Your task to perform on an android device: Open Amazon Image 0: 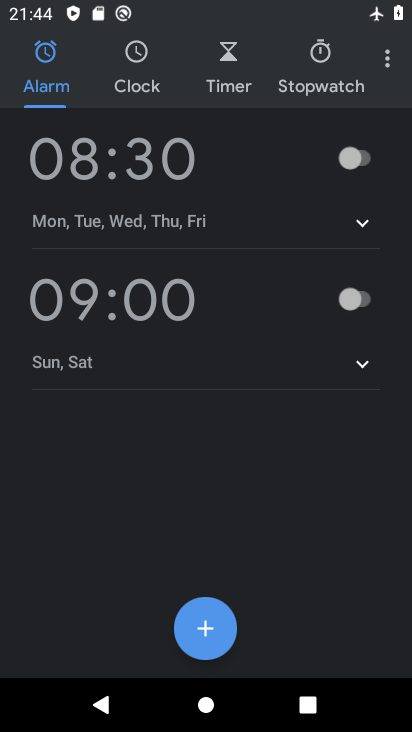
Step 0: press home button
Your task to perform on an android device: Open Amazon Image 1: 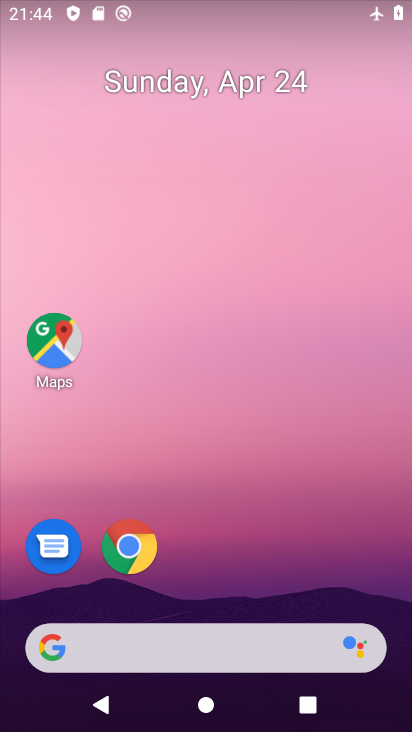
Step 1: drag from (236, 578) to (289, 196)
Your task to perform on an android device: Open Amazon Image 2: 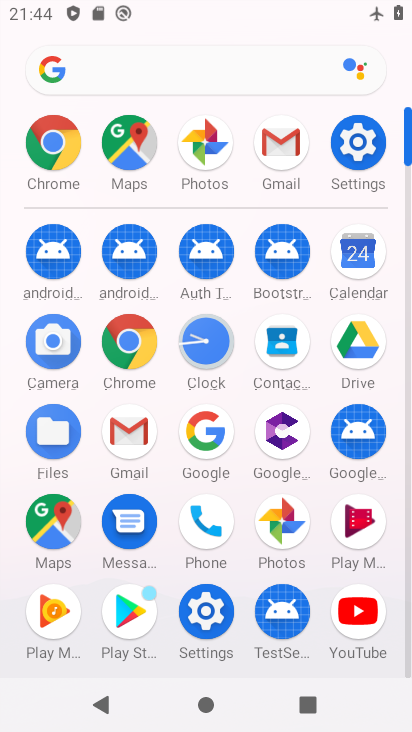
Step 2: click (125, 348)
Your task to perform on an android device: Open Amazon Image 3: 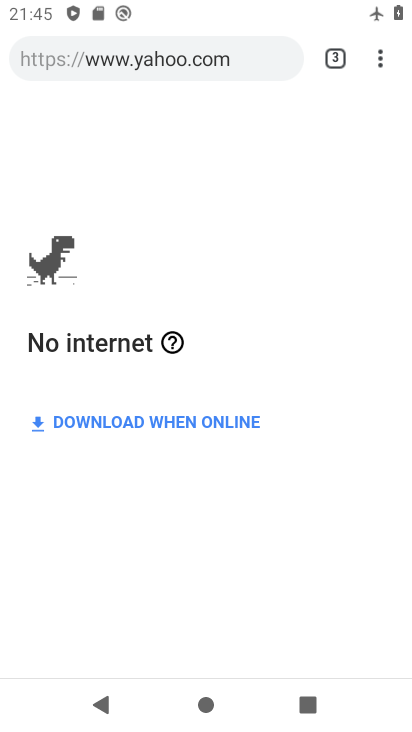
Step 3: click (378, 56)
Your task to perform on an android device: Open Amazon Image 4: 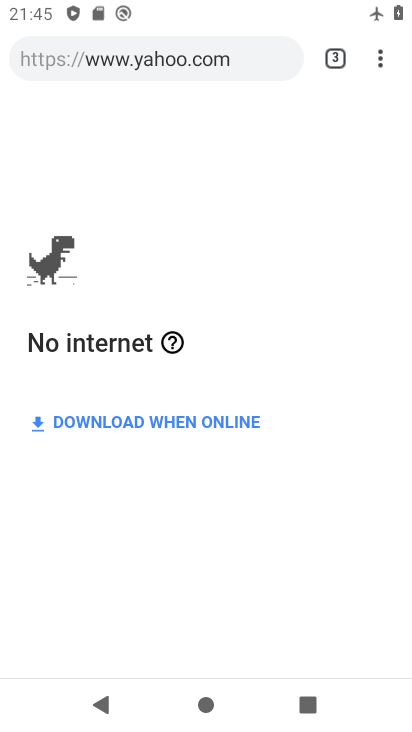
Step 4: click (365, 56)
Your task to perform on an android device: Open Amazon Image 5: 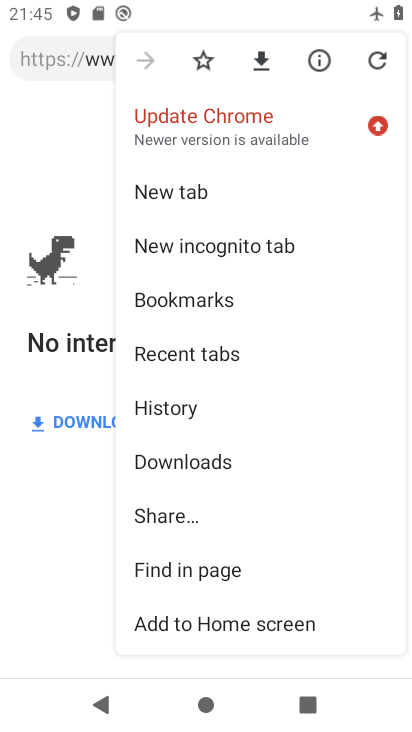
Step 5: click (205, 194)
Your task to perform on an android device: Open Amazon Image 6: 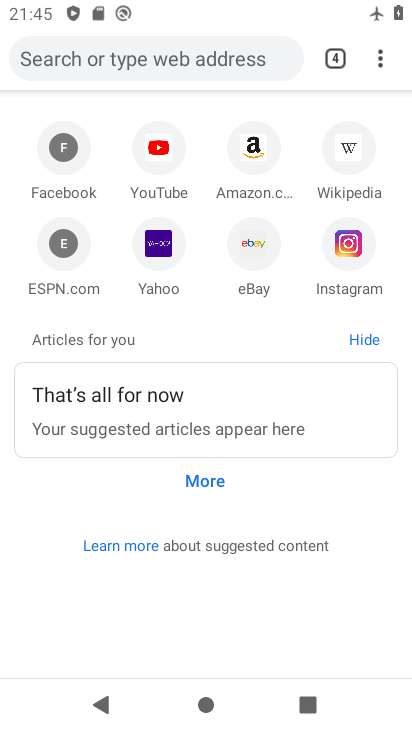
Step 6: click (251, 148)
Your task to perform on an android device: Open Amazon Image 7: 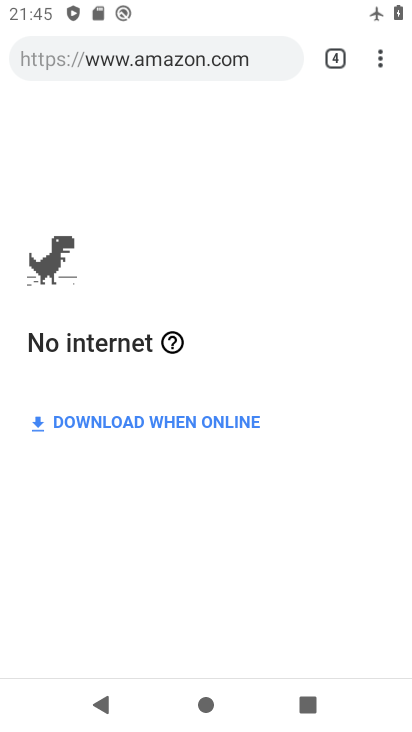
Step 7: task complete